Your task to perform on an android device: Toggle the flashlight Image 0: 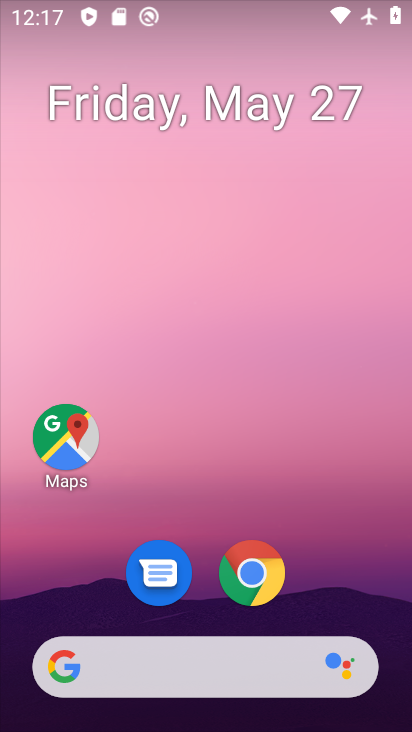
Step 0: drag from (342, 520) to (370, 173)
Your task to perform on an android device: Toggle the flashlight Image 1: 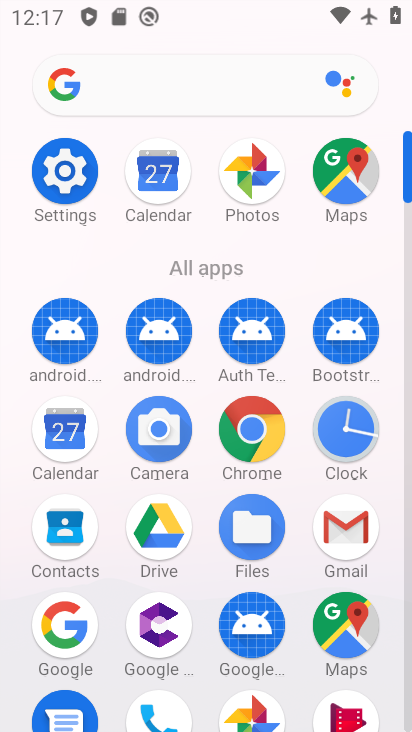
Step 1: click (80, 178)
Your task to perform on an android device: Toggle the flashlight Image 2: 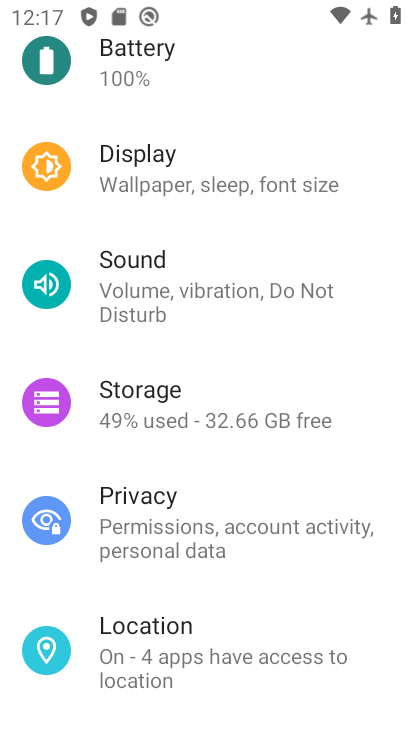
Step 2: drag from (235, 148) to (234, 586)
Your task to perform on an android device: Toggle the flashlight Image 3: 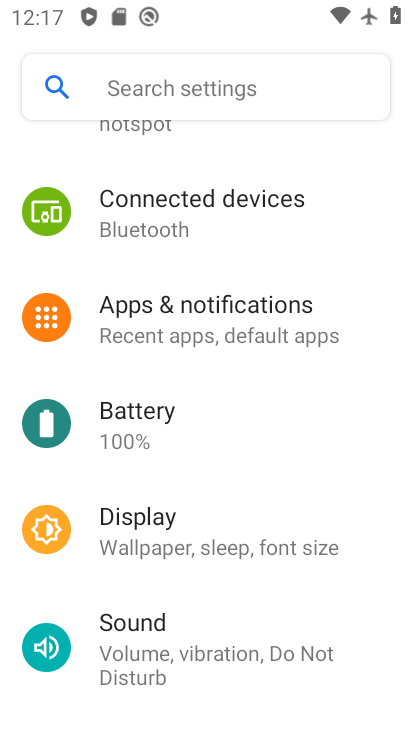
Step 3: drag from (193, 204) to (193, 409)
Your task to perform on an android device: Toggle the flashlight Image 4: 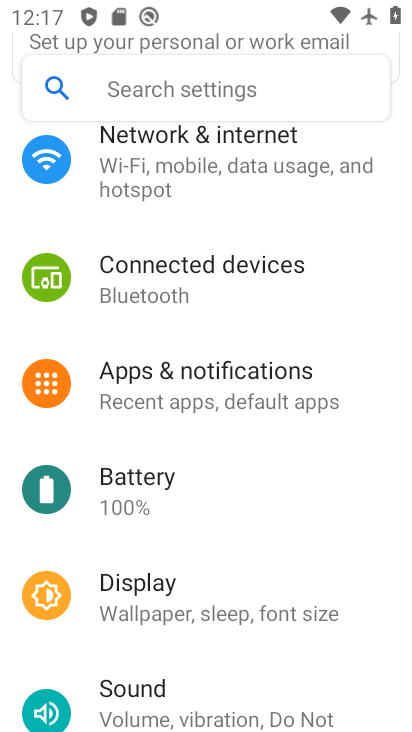
Step 4: click (183, 598)
Your task to perform on an android device: Toggle the flashlight Image 5: 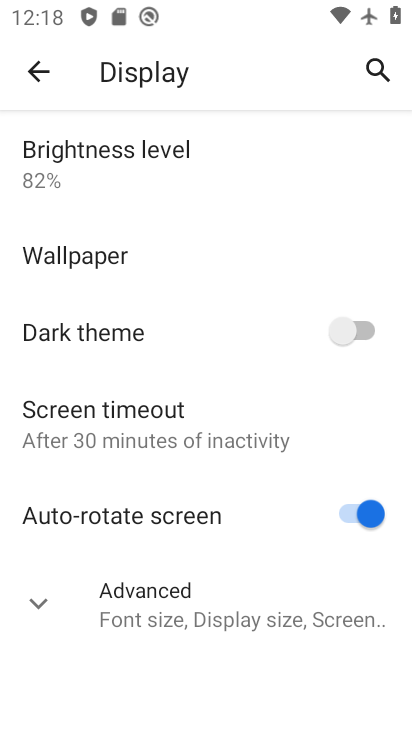
Step 5: task complete